Your task to perform on an android device: Check the news Image 0: 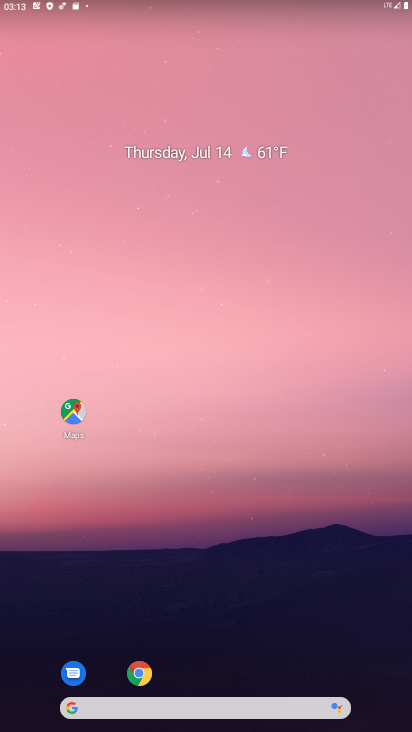
Step 0: click (223, 710)
Your task to perform on an android device: Check the news Image 1: 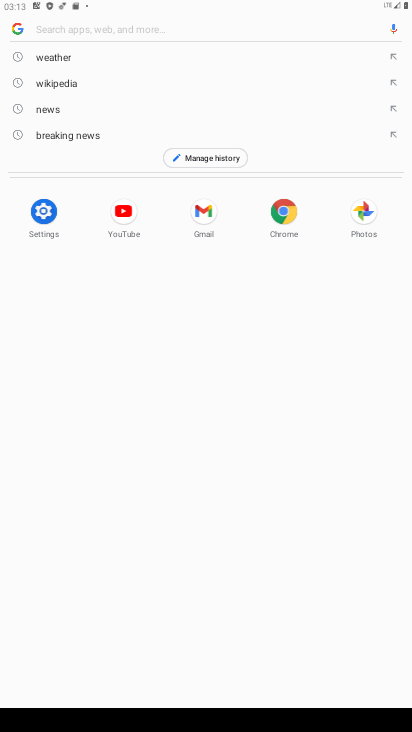
Step 1: click (111, 109)
Your task to perform on an android device: Check the news Image 2: 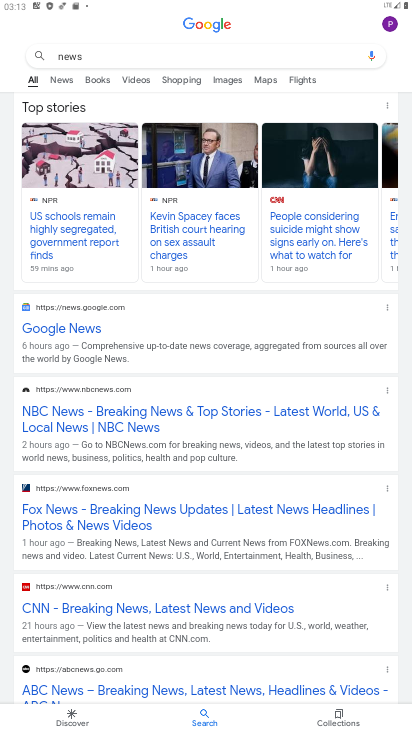
Step 2: task complete